Your task to perform on an android device: Go to Android settings Image 0: 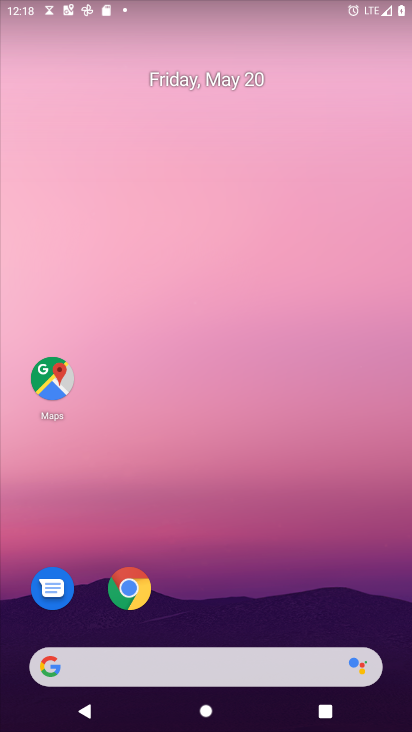
Step 0: drag from (276, 591) to (244, 60)
Your task to perform on an android device: Go to Android settings Image 1: 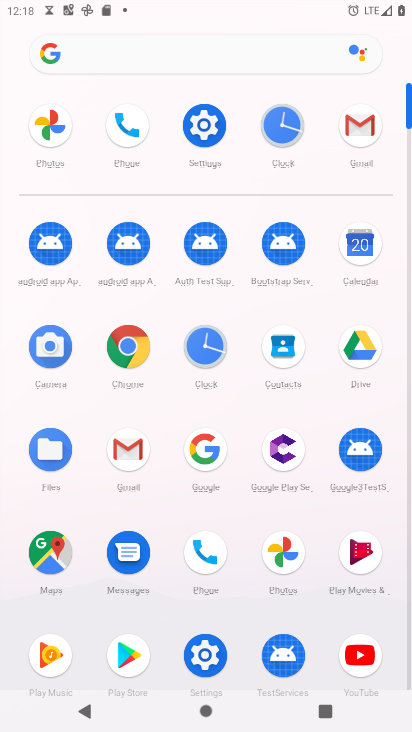
Step 1: click (213, 140)
Your task to perform on an android device: Go to Android settings Image 2: 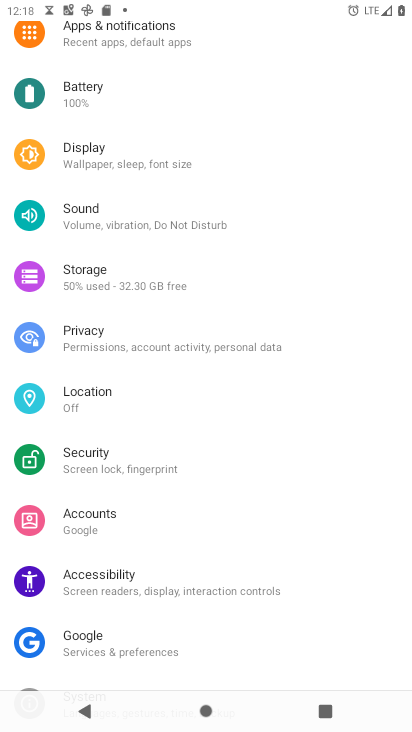
Step 2: drag from (249, 167) to (249, 16)
Your task to perform on an android device: Go to Android settings Image 3: 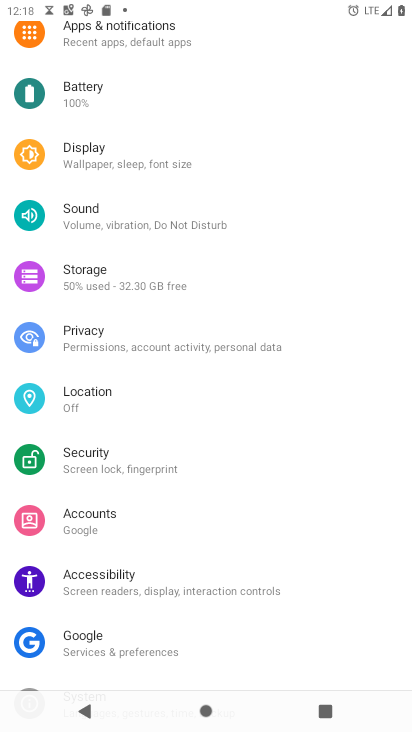
Step 3: drag from (279, 582) to (279, 155)
Your task to perform on an android device: Go to Android settings Image 4: 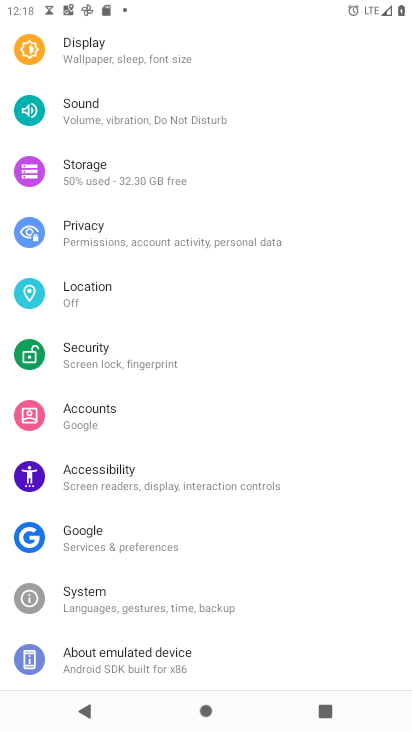
Step 4: click (214, 672)
Your task to perform on an android device: Go to Android settings Image 5: 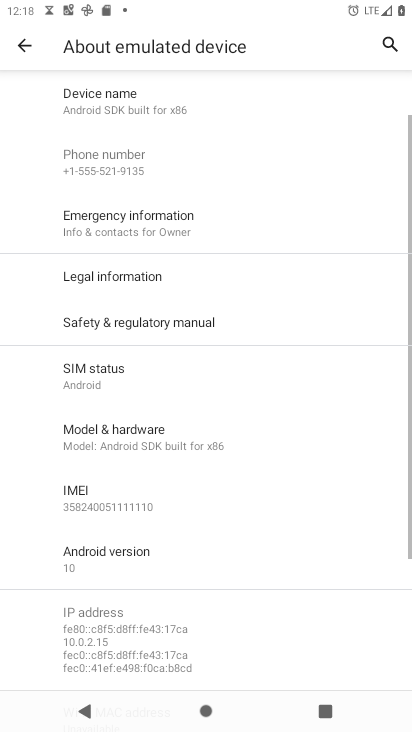
Step 5: click (185, 671)
Your task to perform on an android device: Go to Android settings Image 6: 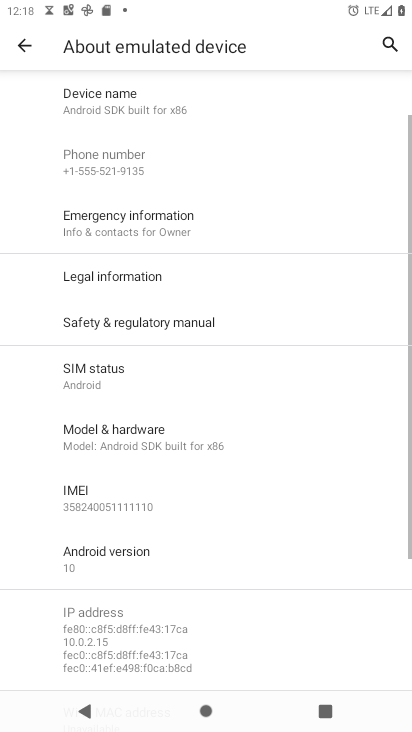
Step 6: click (205, 552)
Your task to perform on an android device: Go to Android settings Image 7: 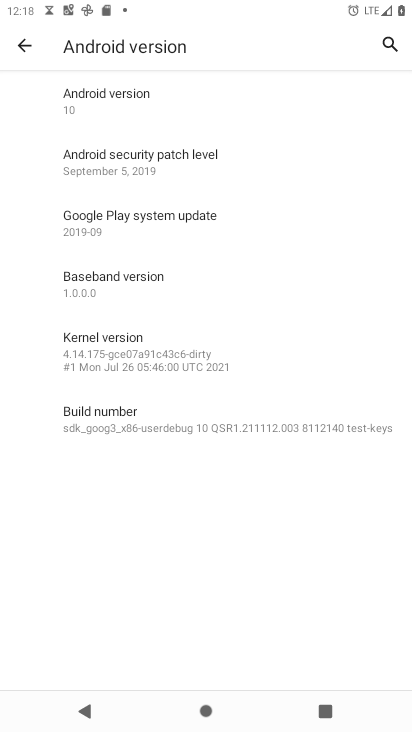
Step 7: task complete